Your task to perform on an android device: Search for top rated burger restaurants on Maps Image 0: 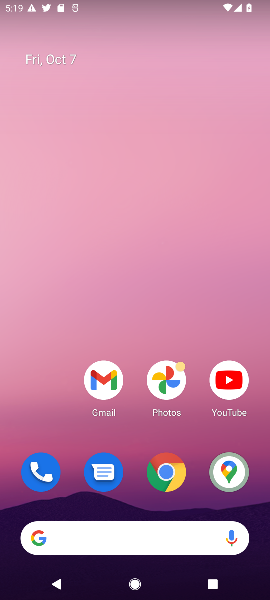
Step 0: drag from (192, 499) to (177, 318)
Your task to perform on an android device: Search for top rated burger restaurants on Maps Image 1: 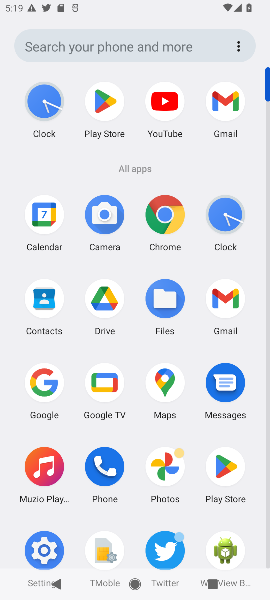
Step 1: click (163, 381)
Your task to perform on an android device: Search for top rated burger restaurants on Maps Image 2: 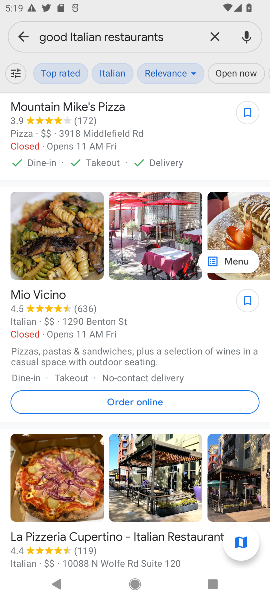
Step 2: click (215, 30)
Your task to perform on an android device: Search for top rated burger restaurants on Maps Image 3: 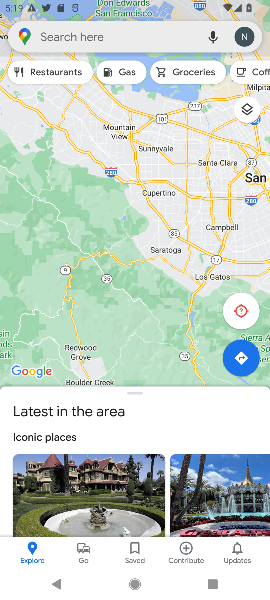
Step 3: type "burger restaurants "
Your task to perform on an android device: Search for top rated burger restaurants on Maps Image 4: 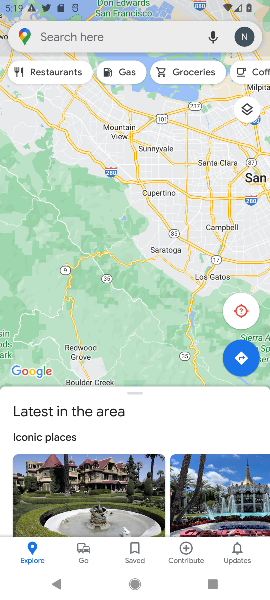
Step 4: click (139, 37)
Your task to perform on an android device: Search for top rated burger restaurants on Maps Image 5: 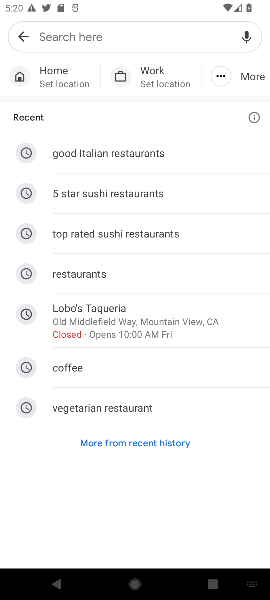
Step 5: type "burger restaurants "
Your task to perform on an android device: Search for top rated burger restaurants on Maps Image 6: 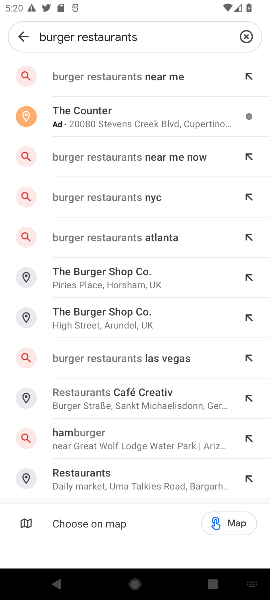
Step 6: press enter
Your task to perform on an android device: Search for top rated burger restaurants on Maps Image 7: 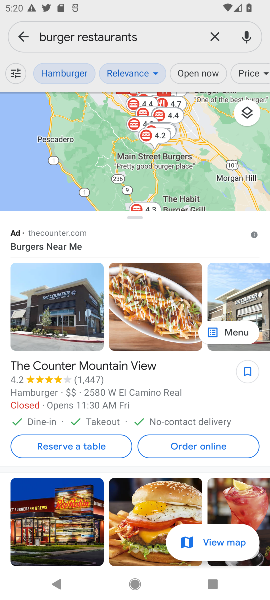
Step 7: click (155, 72)
Your task to perform on an android device: Search for top rated burger restaurants on Maps Image 8: 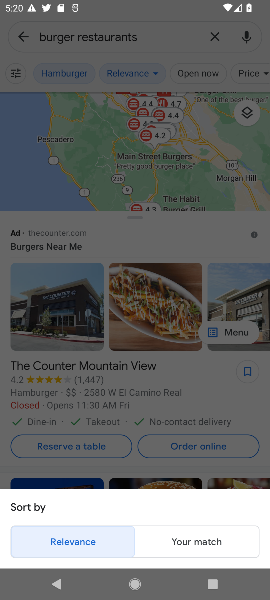
Step 8: click (216, 106)
Your task to perform on an android device: Search for top rated burger restaurants on Maps Image 9: 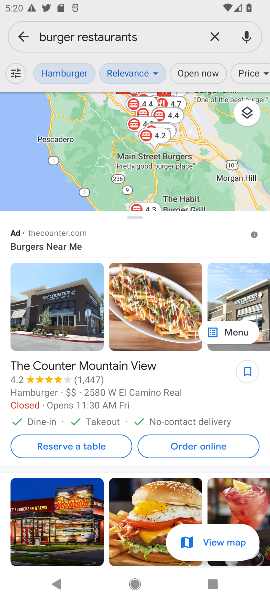
Step 9: click (14, 78)
Your task to perform on an android device: Search for top rated burger restaurants on Maps Image 10: 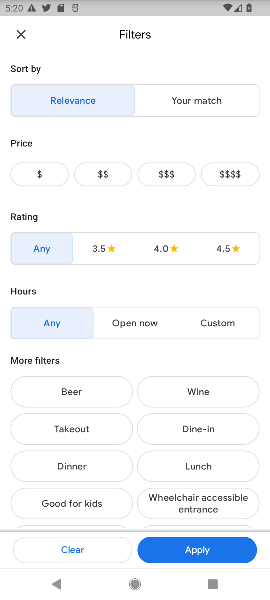
Step 10: click (235, 243)
Your task to perform on an android device: Search for top rated burger restaurants on Maps Image 11: 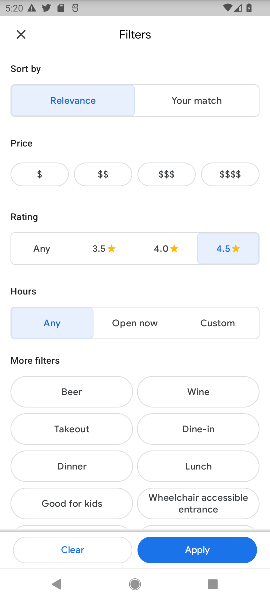
Step 11: click (194, 553)
Your task to perform on an android device: Search for top rated burger restaurants on Maps Image 12: 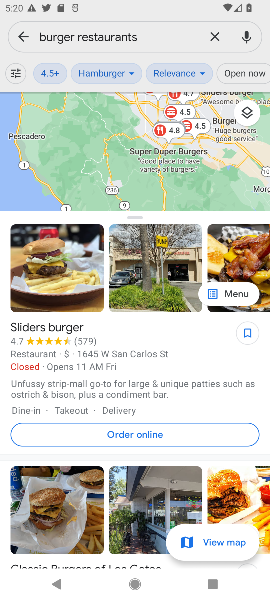
Step 12: task complete